Your task to perform on an android device: check data usage Image 0: 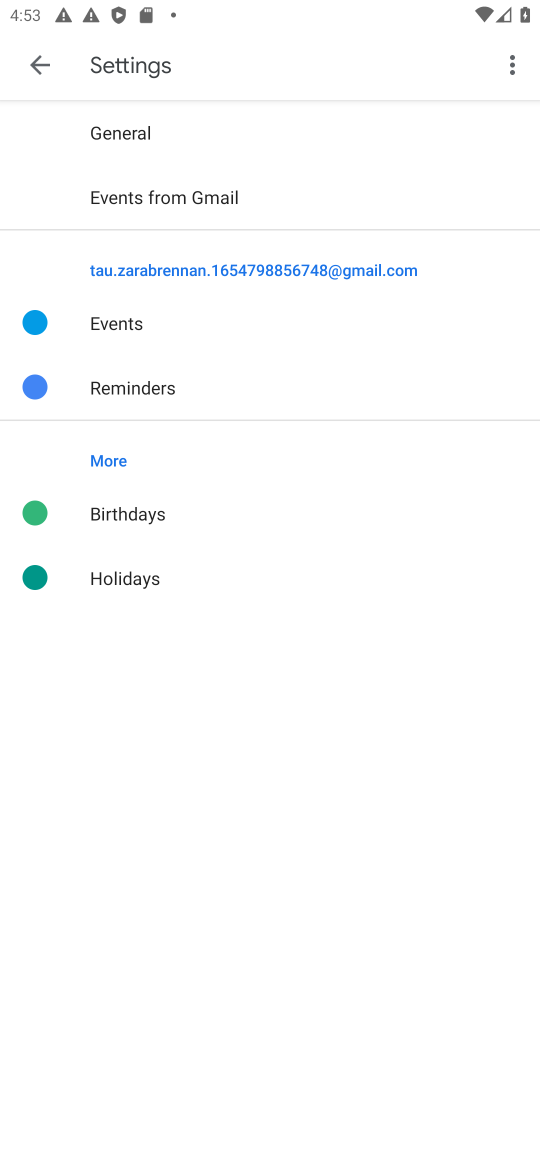
Step 0: press back button
Your task to perform on an android device: check data usage Image 1: 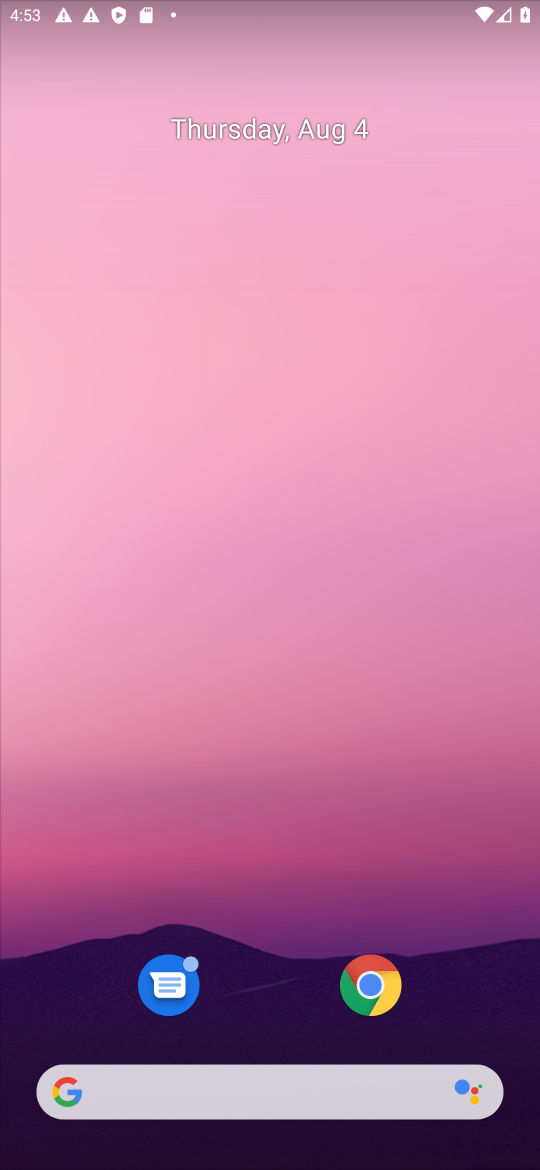
Step 1: drag from (306, 1081) to (278, 211)
Your task to perform on an android device: check data usage Image 2: 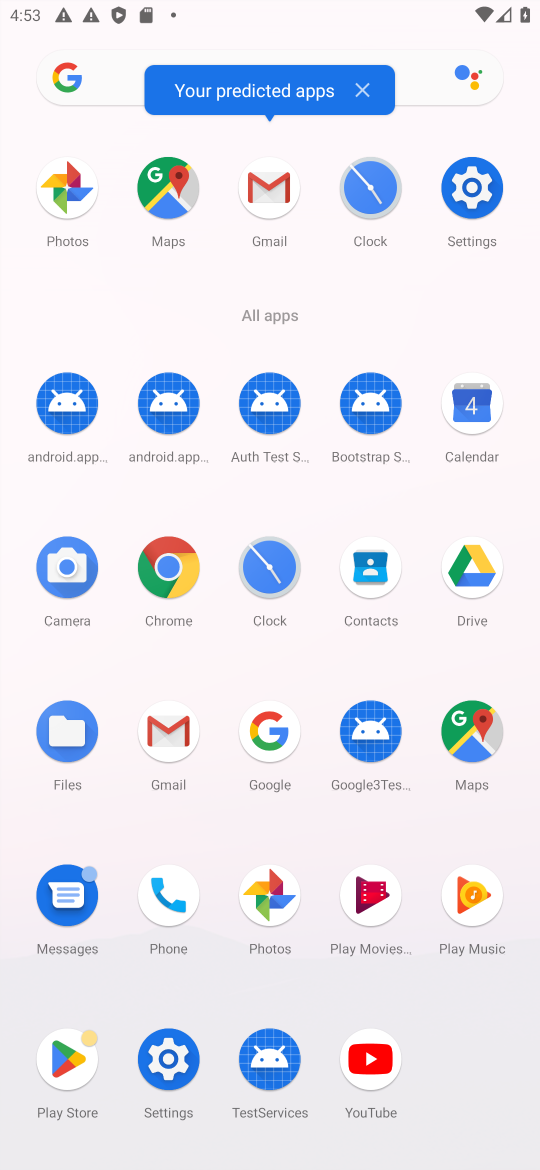
Step 2: click (466, 210)
Your task to perform on an android device: check data usage Image 3: 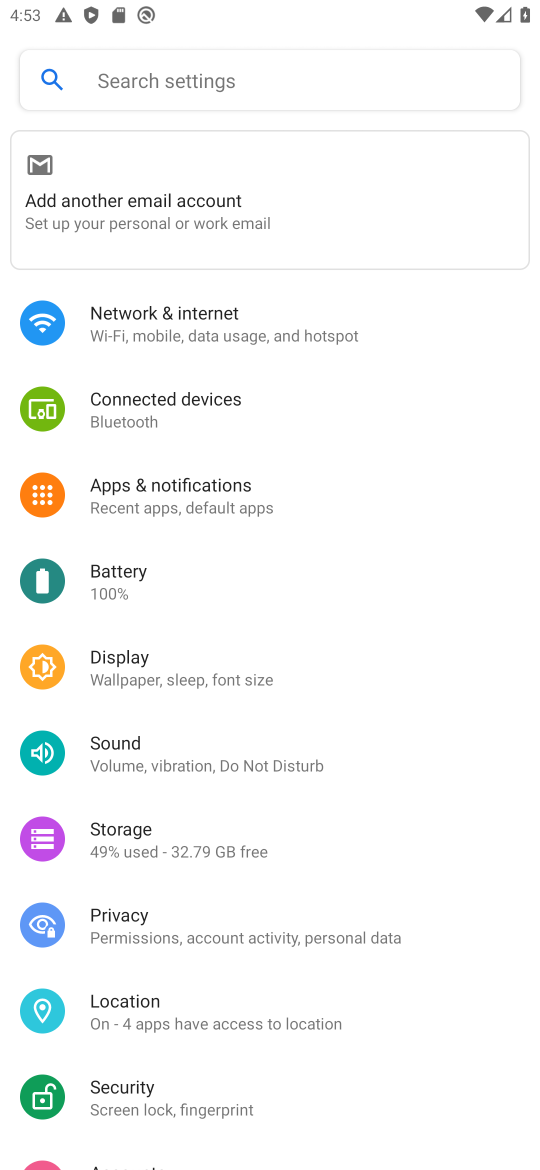
Step 3: click (207, 343)
Your task to perform on an android device: check data usage Image 4: 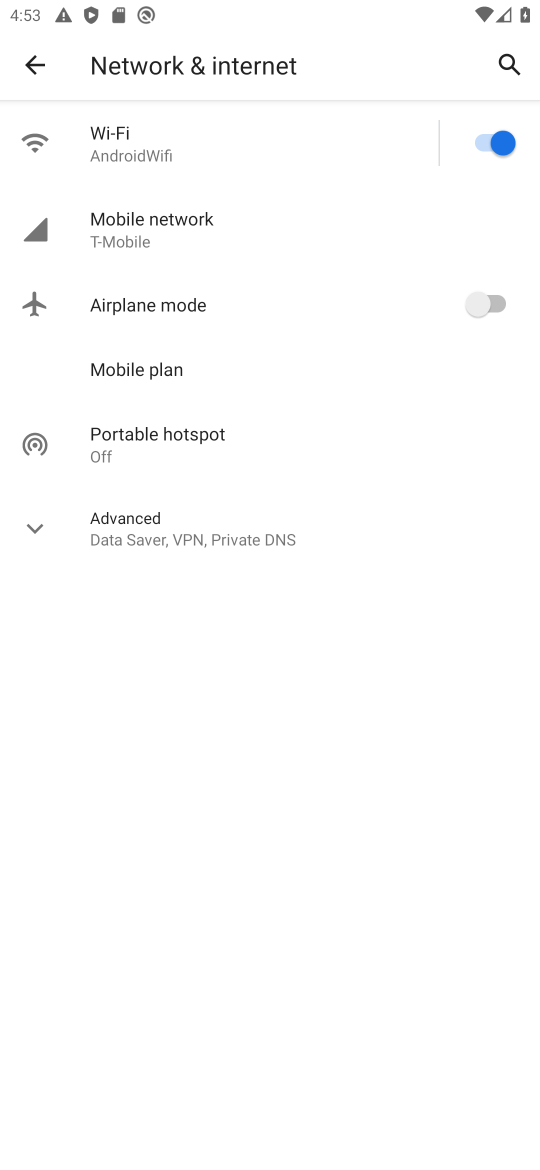
Step 4: click (153, 246)
Your task to perform on an android device: check data usage Image 5: 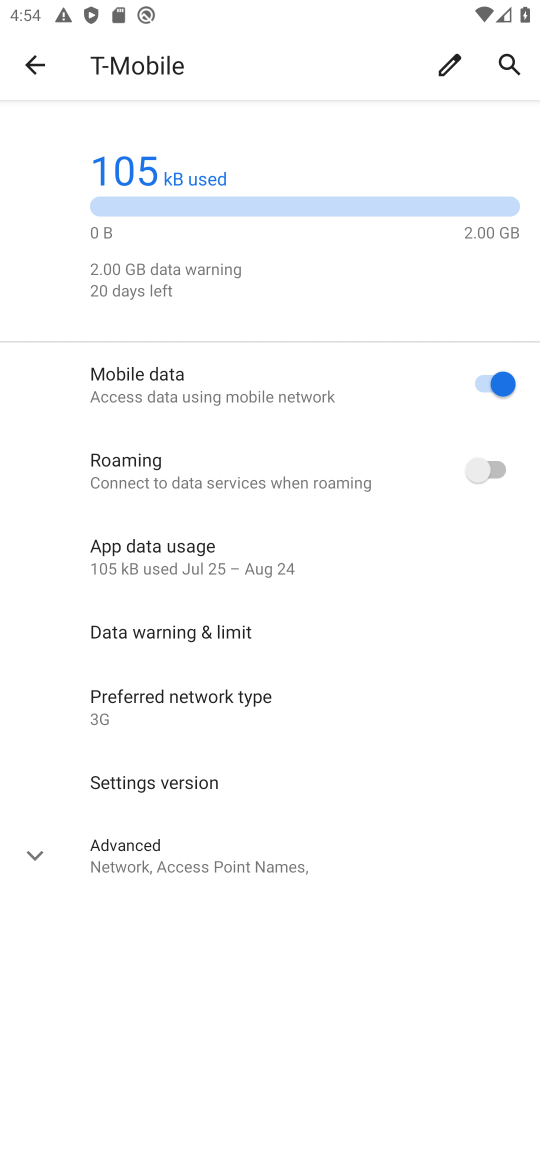
Step 5: task complete